Your task to perform on an android device: Open the web browser Image 0: 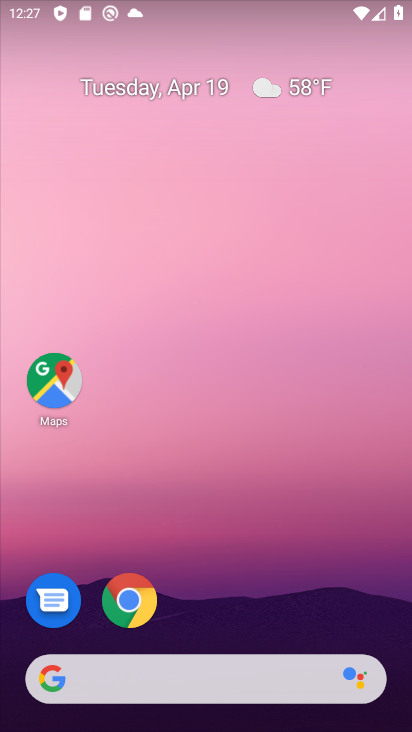
Step 0: drag from (261, 537) to (175, 229)
Your task to perform on an android device: Open the web browser Image 1: 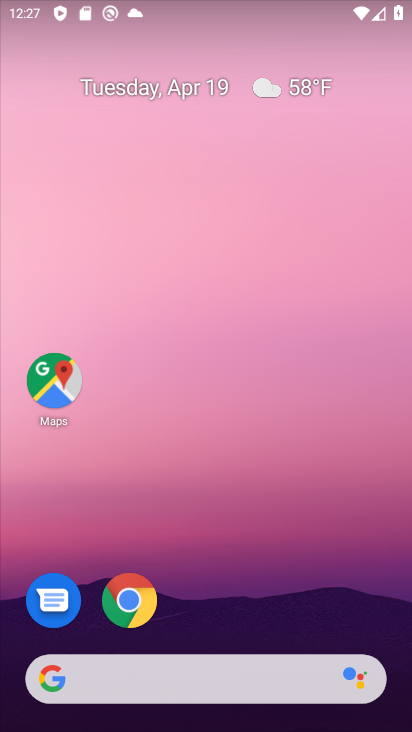
Step 1: drag from (298, 593) to (240, 148)
Your task to perform on an android device: Open the web browser Image 2: 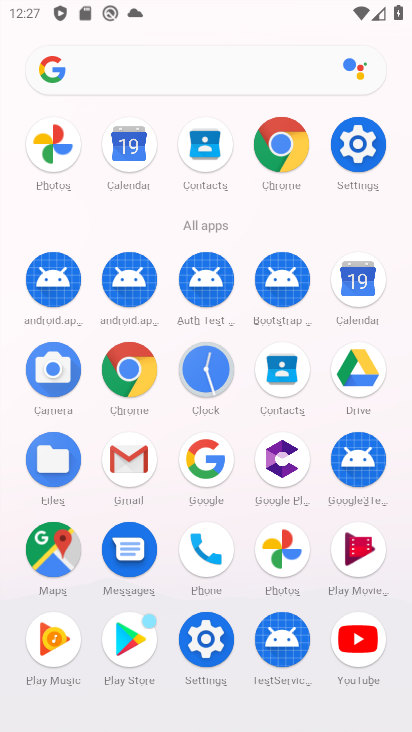
Step 2: click (277, 146)
Your task to perform on an android device: Open the web browser Image 3: 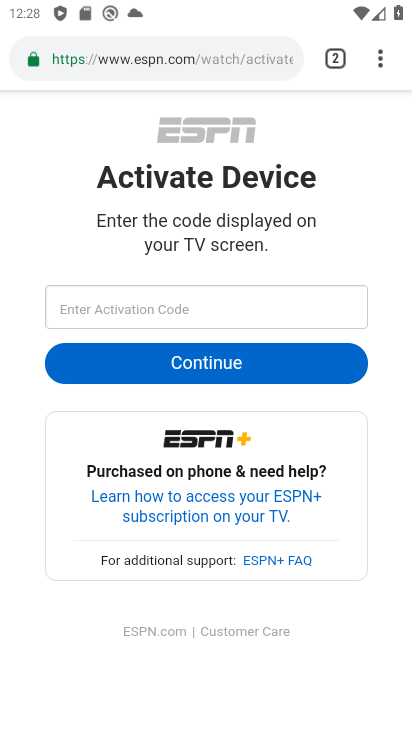
Step 3: task complete